Your task to perform on an android device: Open maps Image 0: 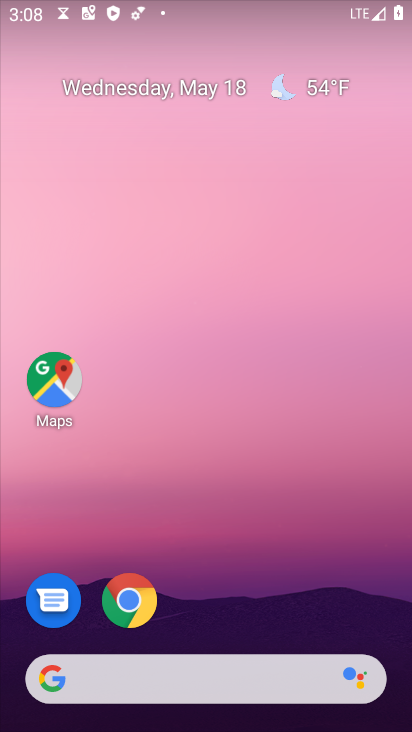
Step 0: click (60, 389)
Your task to perform on an android device: Open maps Image 1: 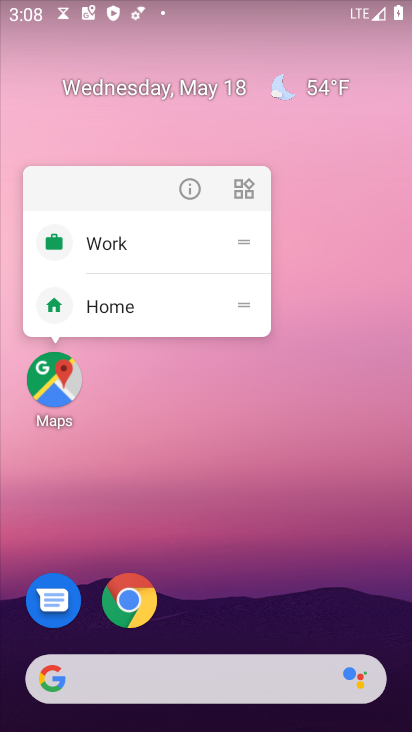
Step 1: click (56, 371)
Your task to perform on an android device: Open maps Image 2: 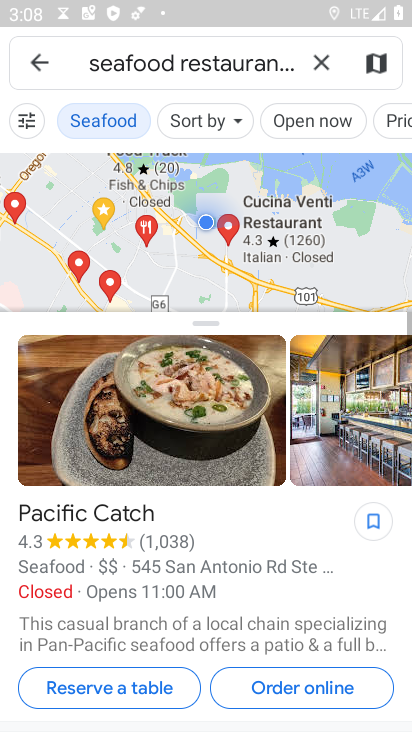
Step 2: task complete